Your task to perform on an android device: turn on sleep mode Image 0: 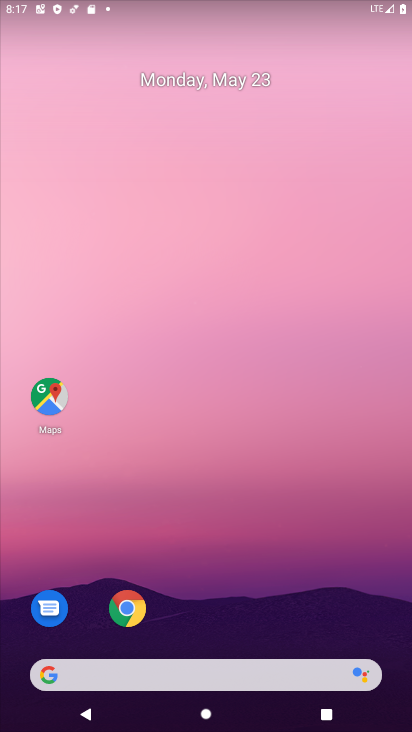
Step 0: drag from (215, 662) to (189, 147)
Your task to perform on an android device: turn on sleep mode Image 1: 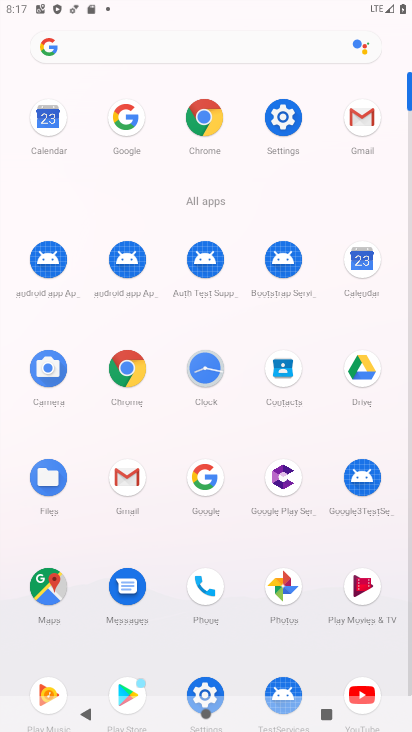
Step 1: click (280, 126)
Your task to perform on an android device: turn on sleep mode Image 2: 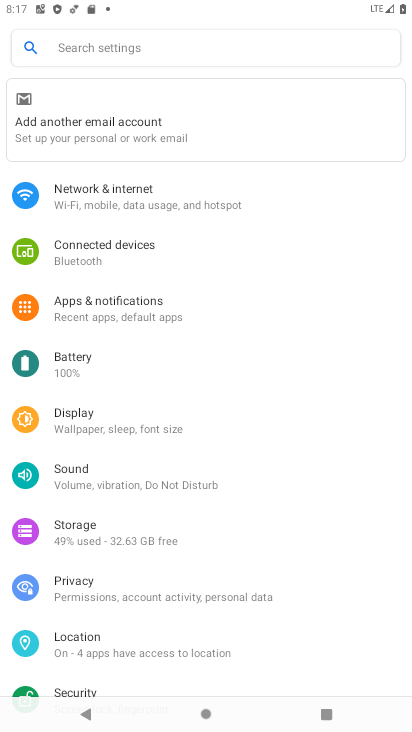
Step 2: click (112, 413)
Your task to perform on an android device: turn on sleep mode Image 3: 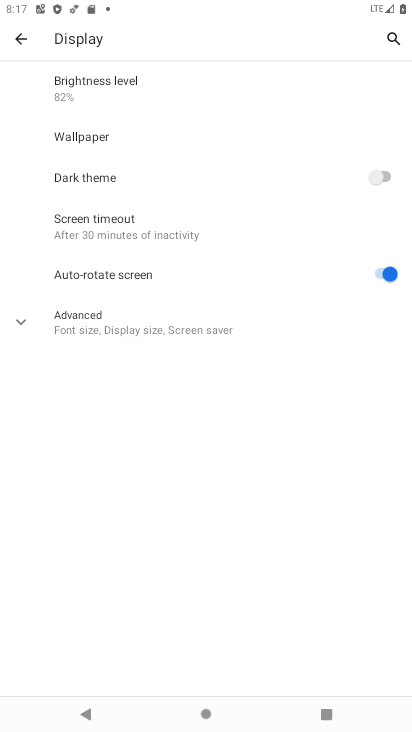
Step 3: click (140, 307)
Your task to perform on an android device: turn on sleep mode Image 4: 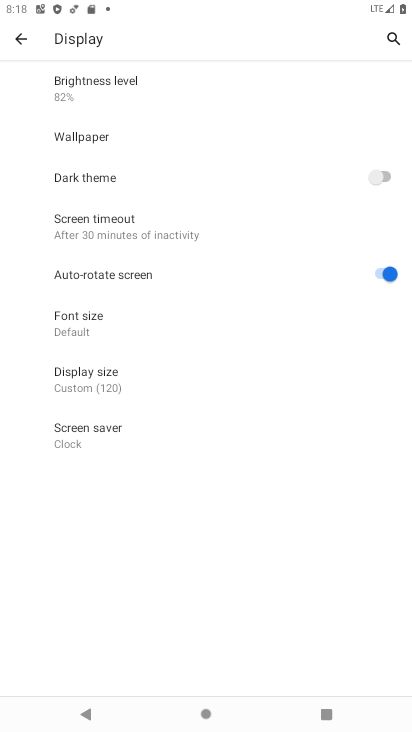
Step 4: task complete